Your task to perform on an android device: Open Android settings Image 0: 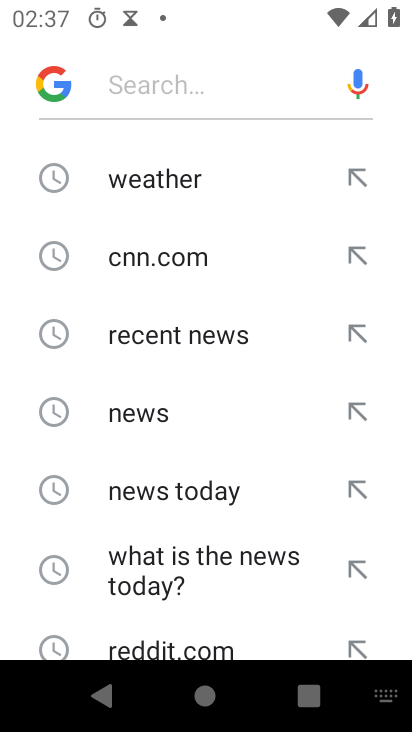
Step 0: press home button
Your task to perform on an android device: Open Android settings Image 1: 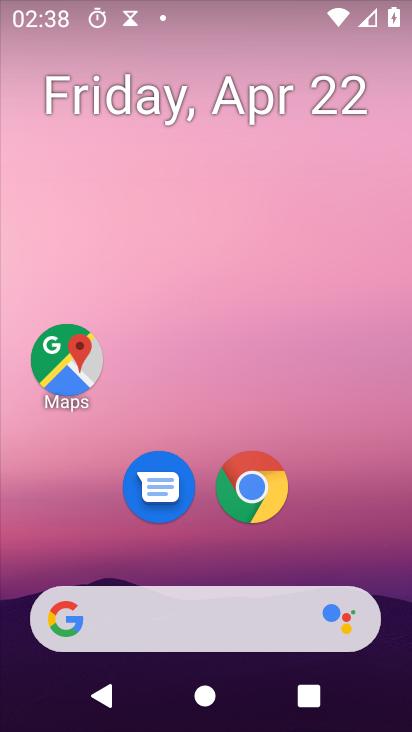
Step 1: drag from (171, 599) to (311, 122)
Your task to perform on an android device: Open Android settings Image 2: 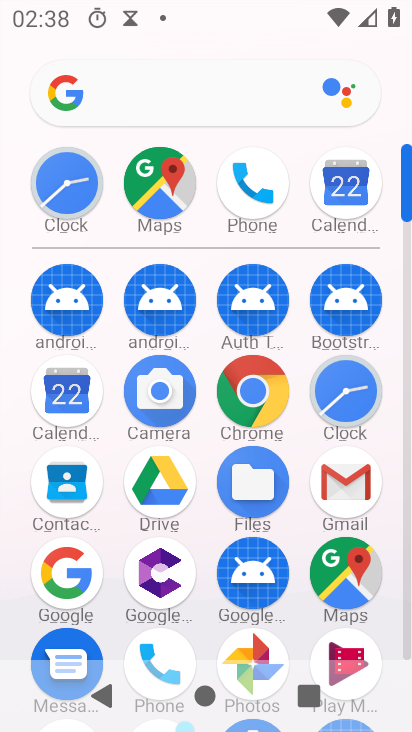
Step 2: drag from (203, 489) to (321, 179)
Your task to perform on an android device: Open Android settings Image 3: 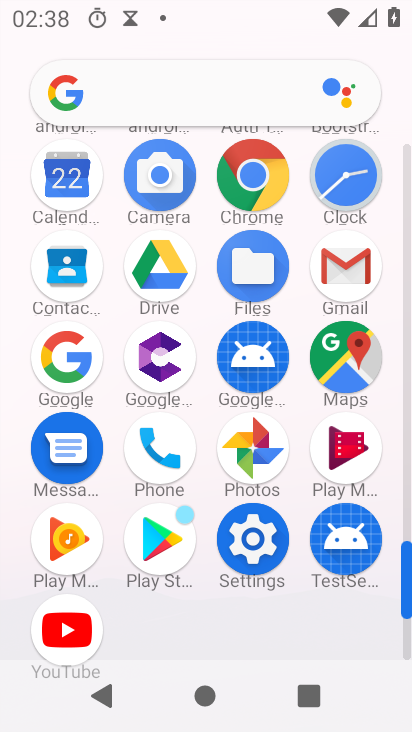
Step 3: click (261, 546)
Your task to perform on an android device: Open Android settings Image 4: 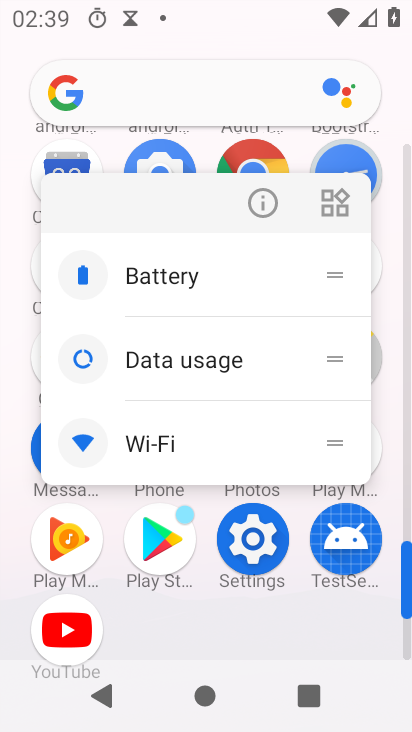
Step 4: click (250, 549)
Your task to perform on an android device: Open Android settings Image 5: 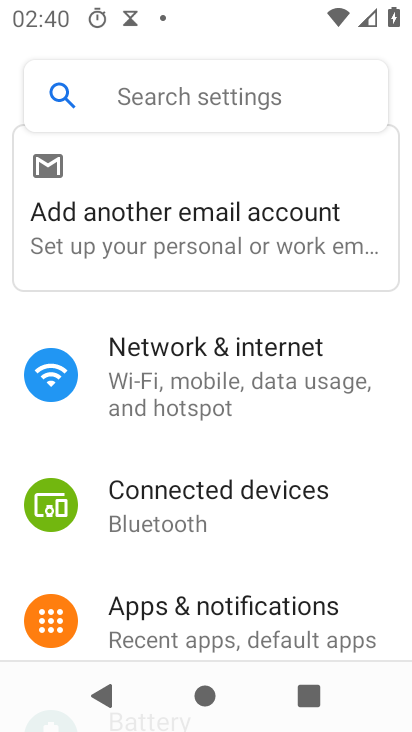
Step 5: task complete